Your task to perform on an android device: Is it going to rain tomorrow? Image 0: 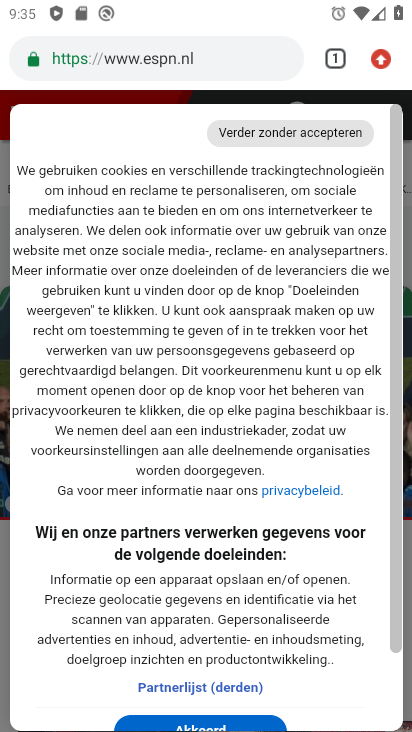
Step 0: press home button
Your task to perform on an android device: Is it going to rain tomorrow? Image 1: 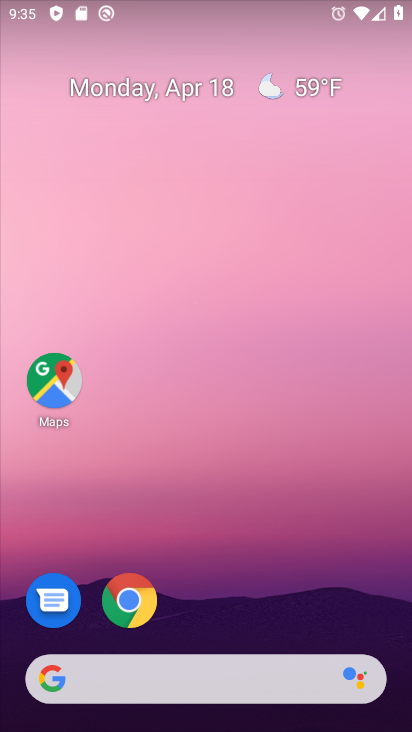
Step 1: click (268, 86)
Your task to perform on an android device: Is it going to rain tomorrow? Image 2: 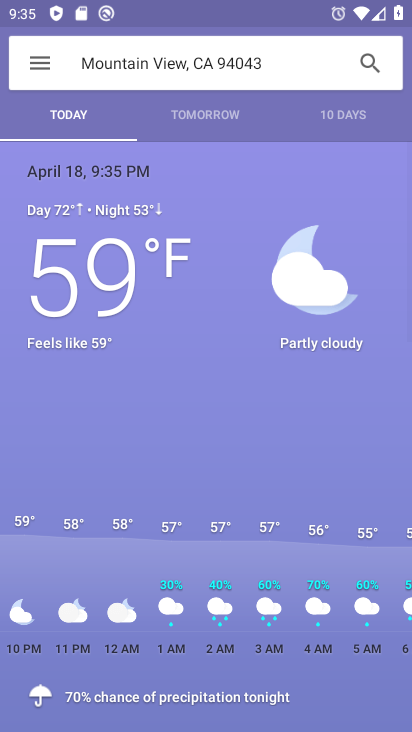
Step 2: click (209, 111)
Your task to perform on an android device: Is it going to rain tomorrow? Image 3: 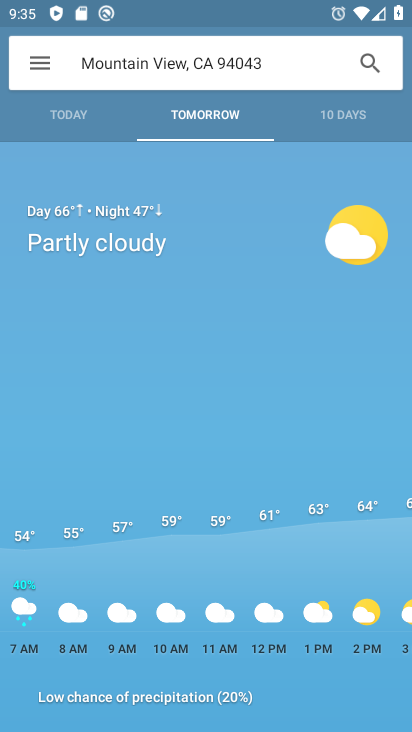
Step 3: task complete